Your task to perform on an android device: Play the last video I watched on Youtube Image 0: 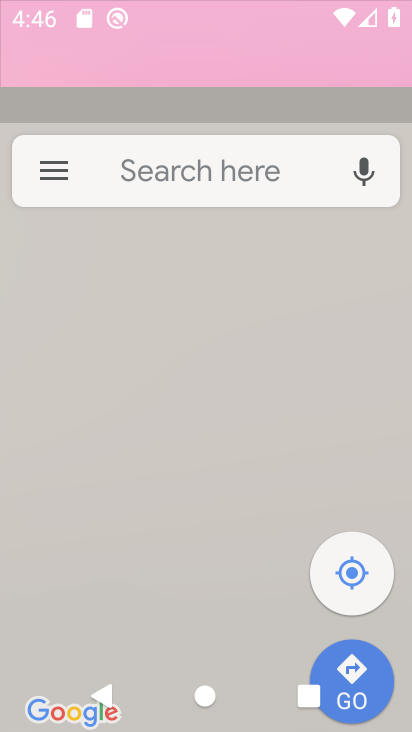
Step 0: drag from (381, 551) to (351, 339)
Your task to perform on an android device: Play the last video I watched on Youtube Image 1: 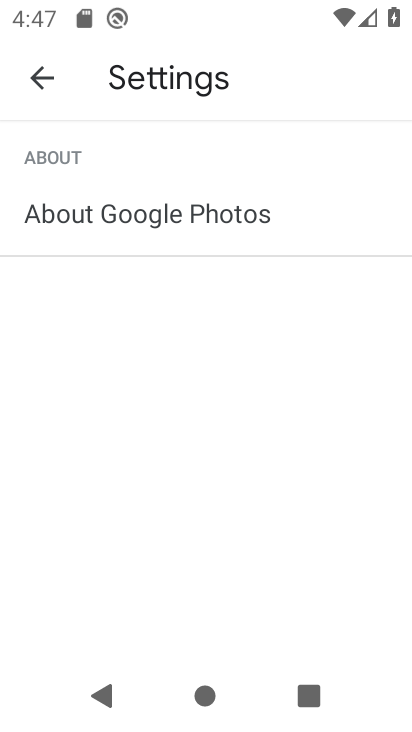
Step 1: press home button
Your task to perform on an android device: Play the last video I watched on Youtube Image 2: 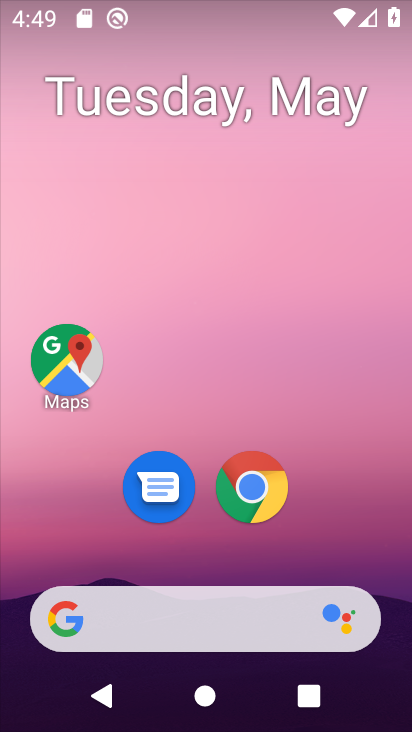
Step 2: drag from (325, 570) to (287, 80)
Your task to perform on an android device: Play the last video I watched on Youtube Image 3: 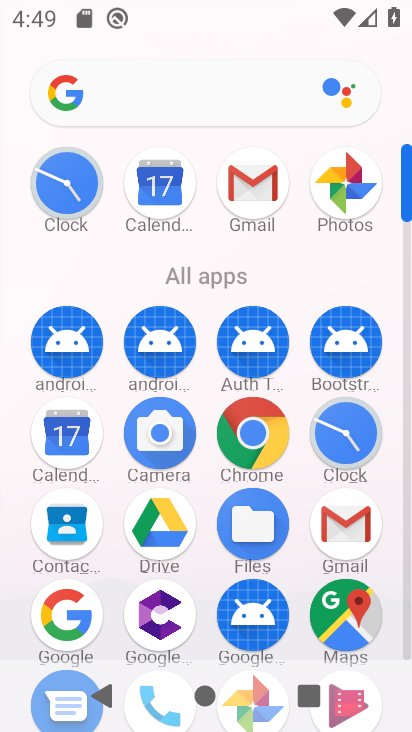
Step 3: click (405, 652)
Your task to perform on an android device: Play the last video I watched on Youtube Image 4: 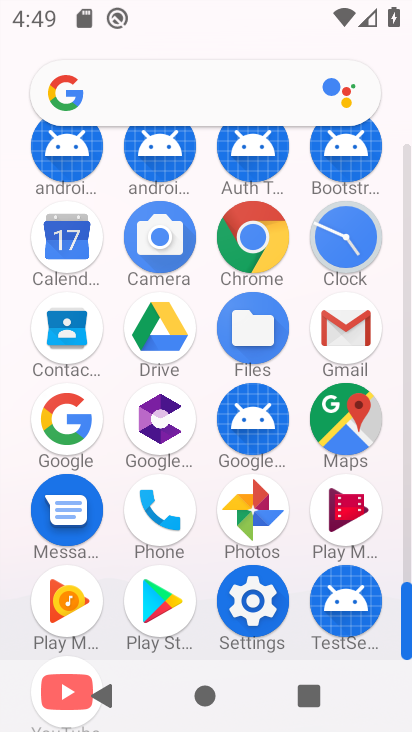
Step 4: drag from (409, 597) to (313, 725)
Your task to perform on an android device: Play the last video I watched on Youtube Image 5: 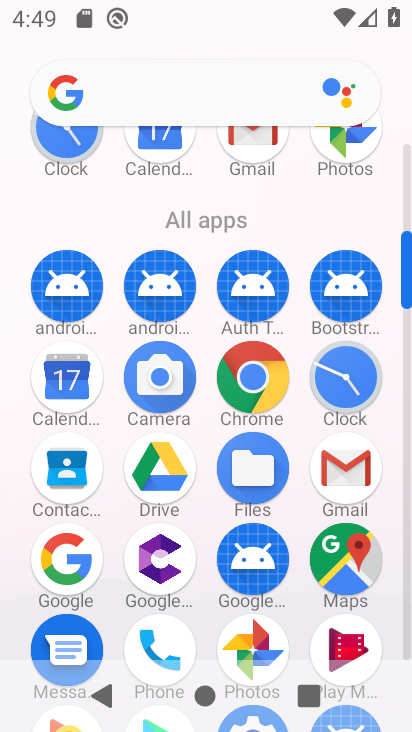
Step 5: click (408, 637)
Your task to perform on an android device: Play the last video I watched on Youtube Image 6: 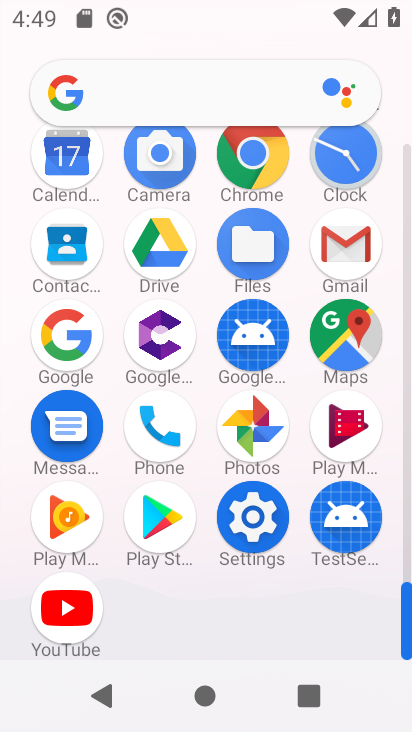
Step 6: click (65, 609)
Your task to perform on an android device: Play the last video I watched on Youtube Image 7: 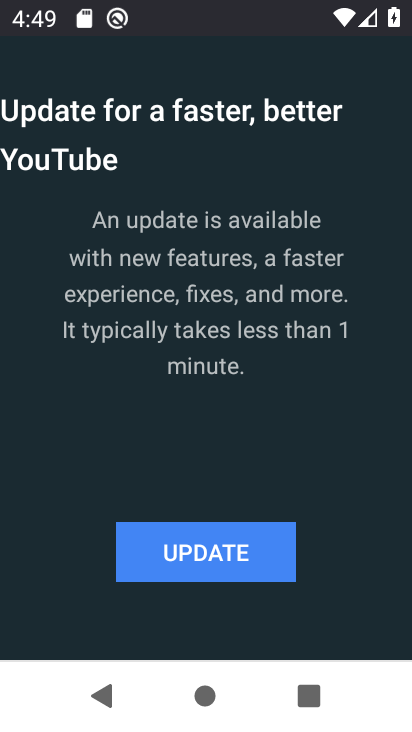
Step 7: drag from (199, 544) to (136, 544)
Your task to perform on an android device: Play the last video I watched on Youtube Image 8: 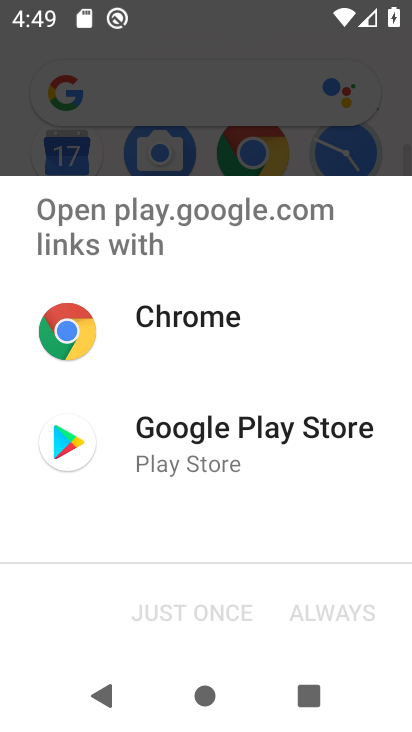
Step 8: click (199, 410)
Your task to perform on an android device: Play the last video I watched on Youtube Image 9: 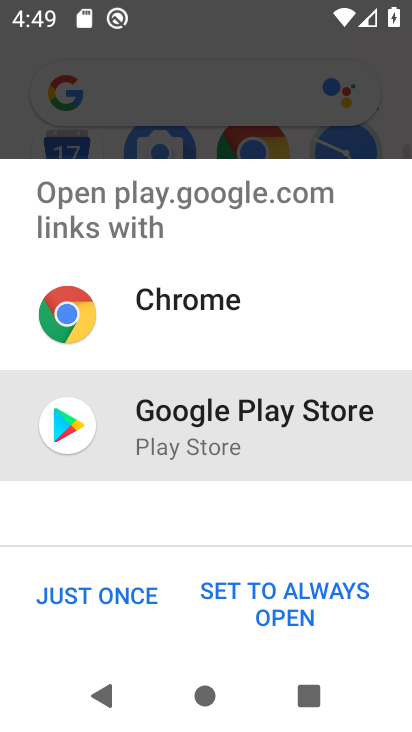
Step 9: click (171, 602)
Your task to perform on an android device: Play the last video I watched on Youtube Image 10: 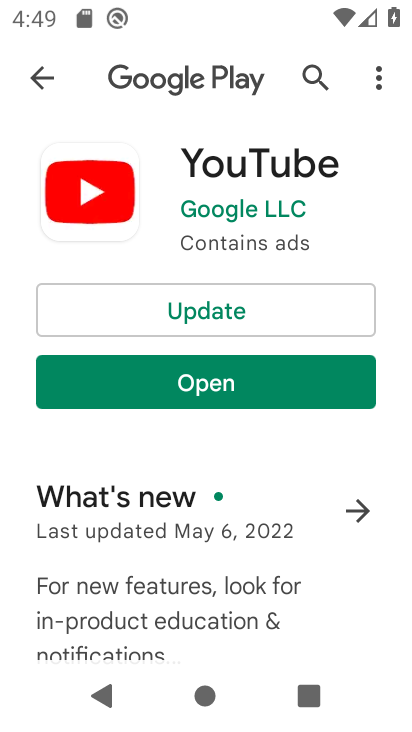
Step 10: click (264, 325)
Your task to perform on an android device: Play the last video I watched on Youtube Image 11: 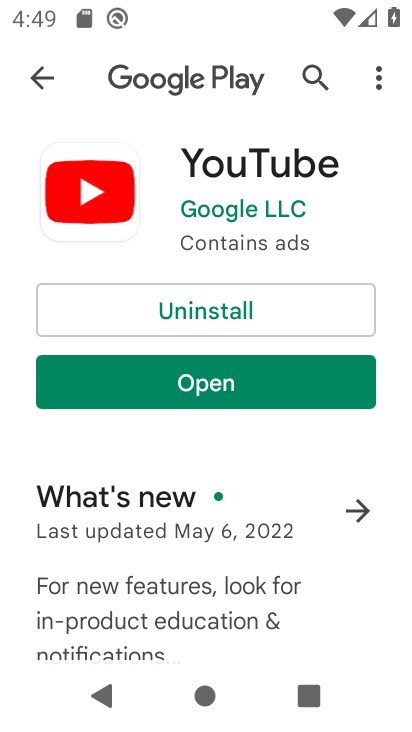
Step 11: click (180, 376)
Your task to perform on an android device: Play the last video I watched on Youtube Image 12: 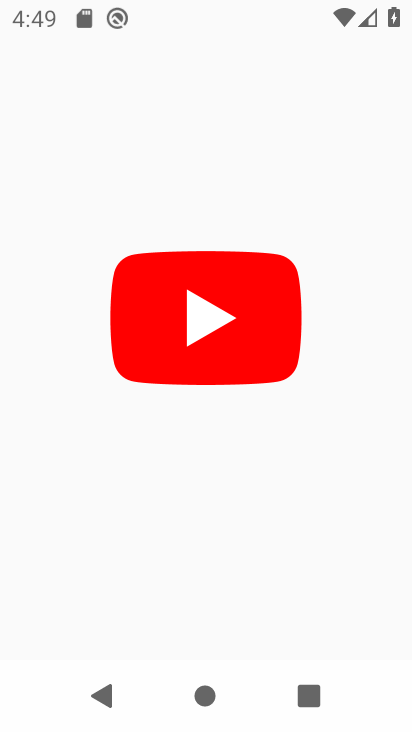
Step 12: task complete